Your task to perform on an android device: choose inbox layout in the gmail app Image 0: 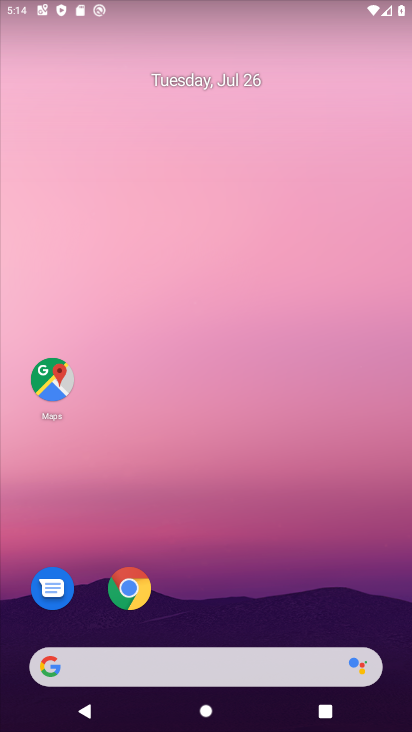
Step 0: drag from (212, 582) to (309, 6)
Your task to perform on an android device: choose inbox layout in the gmail app Image 1: 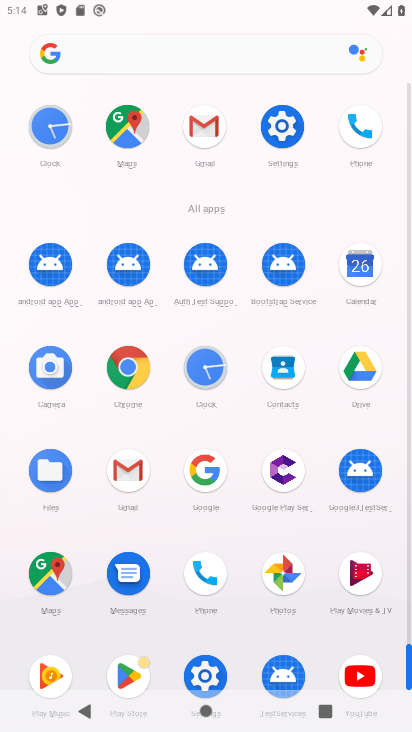
Step 1: click (130, 477)
Your task to perform on an android device: choose inbox layout in the gmail app Image 2: 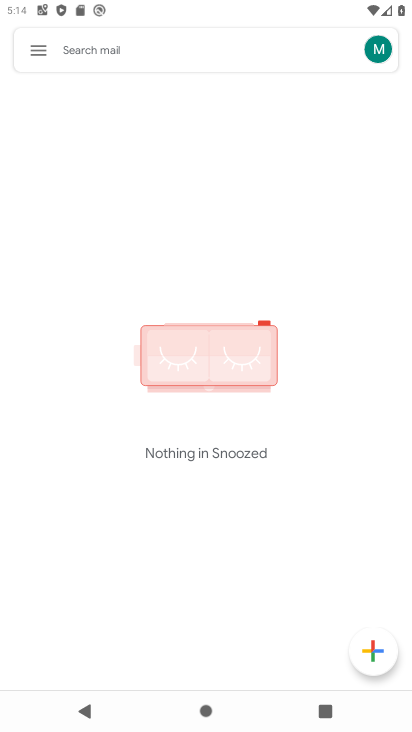
Step 2: click (34, 45)
Your task to perform on an android device: choose inbox layout in the gmail app Image 3: 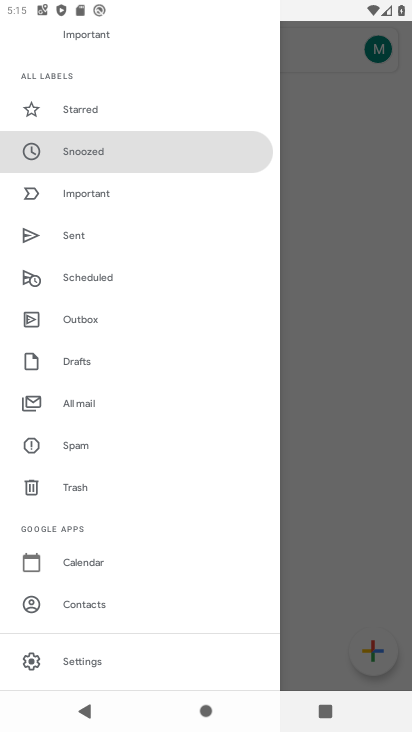
Step 3: click (59, 669)
Your task to perform on an android device: choose inbox layout in the gmail app Image 4: 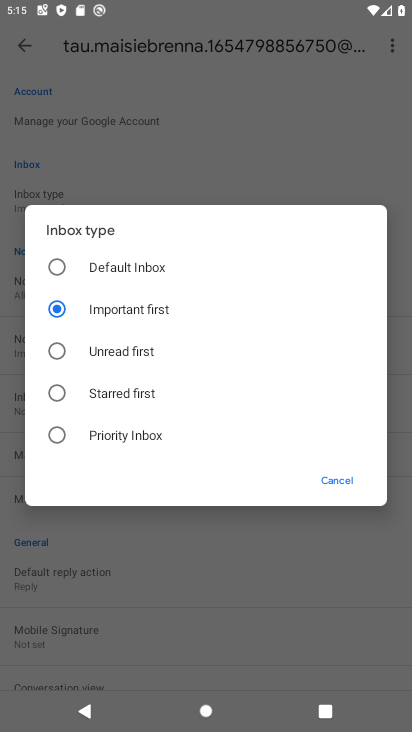
Step 4: task complete